Your task to perform on an android device: toggle wifi Image 0: 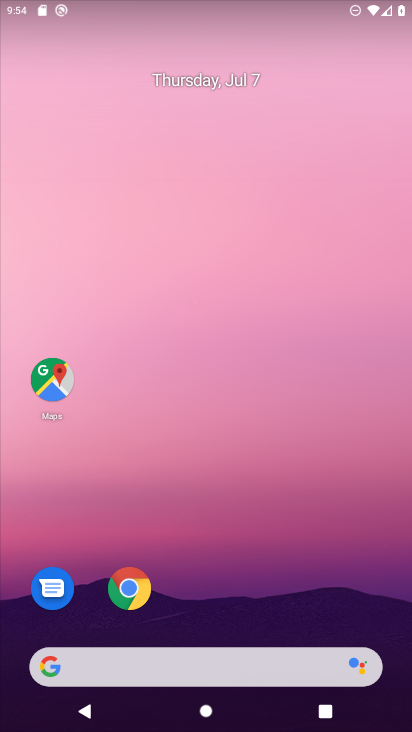
Step 0: drag from (177, 11) to (213, 421)
Your task to perform on an android device: toggle wifi Image 1: 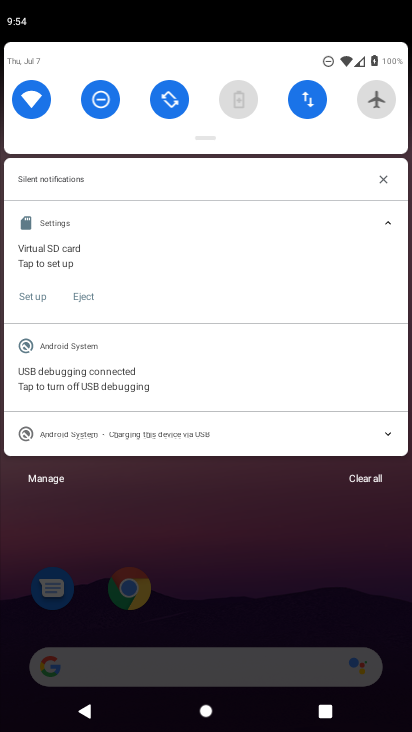
Step 1: click (35, 100)
Your task to perform on an android device: toggle wifi Image 2: 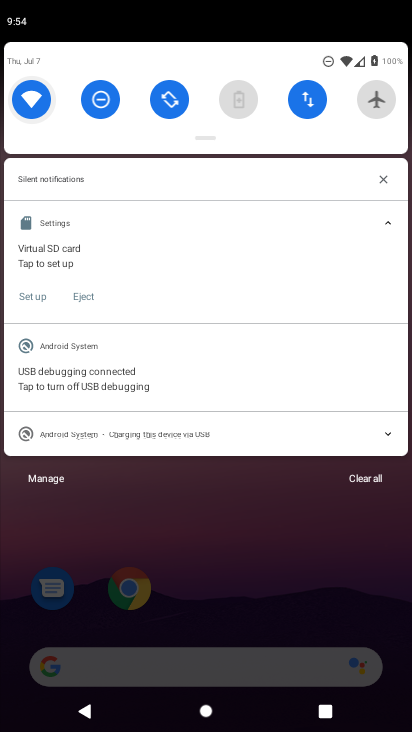
Step 2: click (35, 100)
Your task to perform on an android device: toggle wifi Image 3: 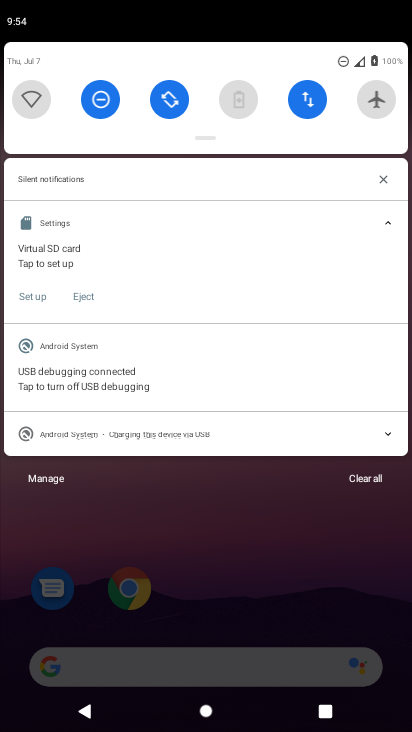
Step 3: click (35, 100)
Your task to perform on an android device: toggle wifi Image 4: 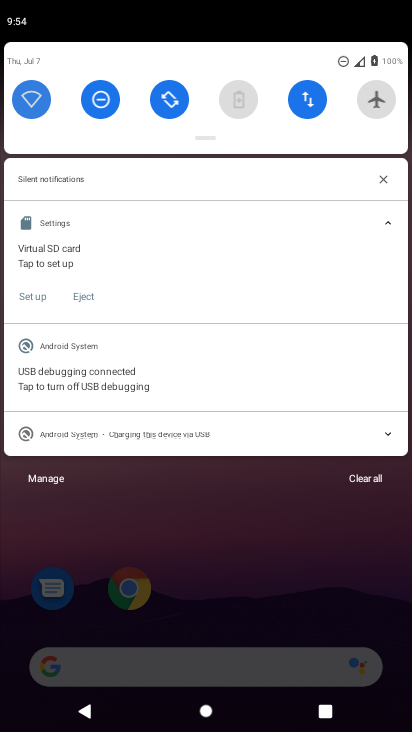
Step 4: click (35, 100)
Your task to perform on an android device: toggle wifi Image 5: 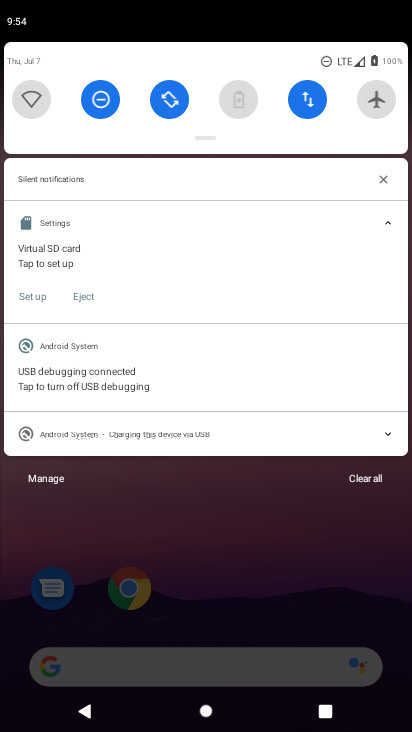
Step 5: click (35, 100)
Your task to perform on an android device: toggle wifi Image 6: 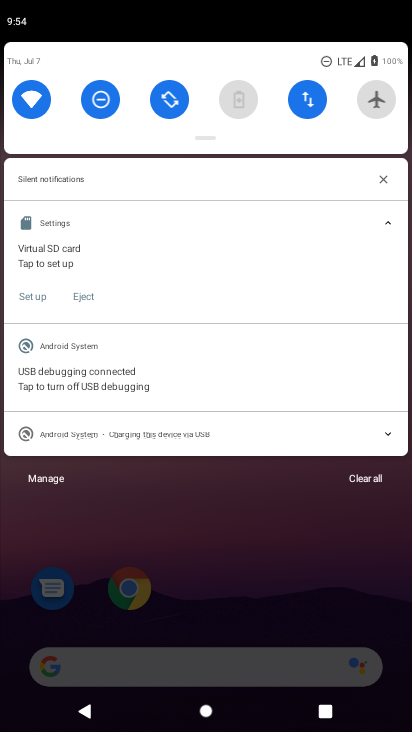
Step 6: task complete